Your task to perform on an android device: see tabs open on other devices in the chrome app Image 0: 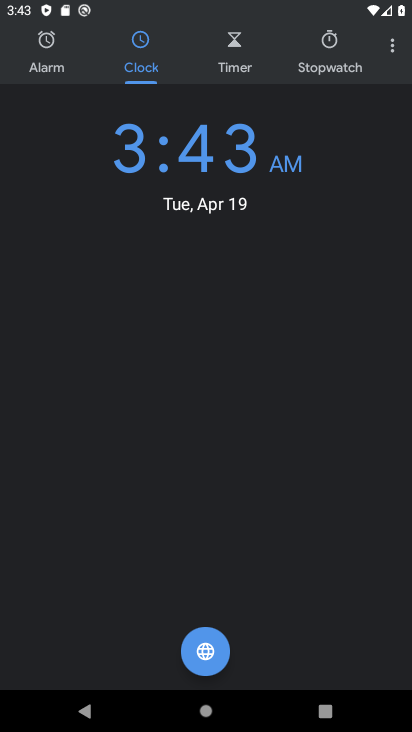
Step 0: press home button
Your task to perform on an android device: see tabs open on other devices in the chrome app Image 1: 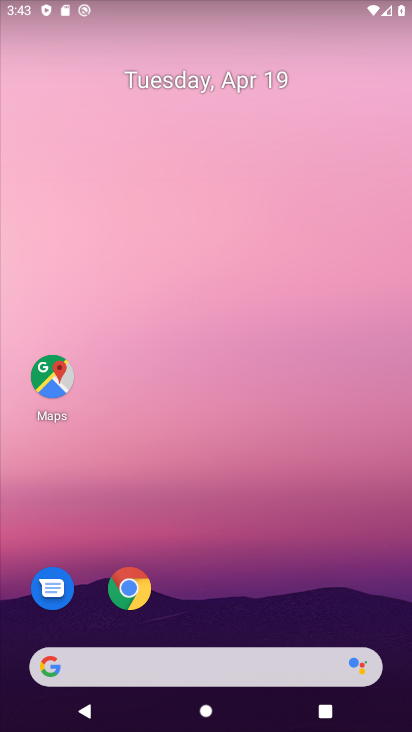
Step 1: click (138, 591)
Your task to perform on an android device: see tabs open on other devices in the chrome app Image 2: 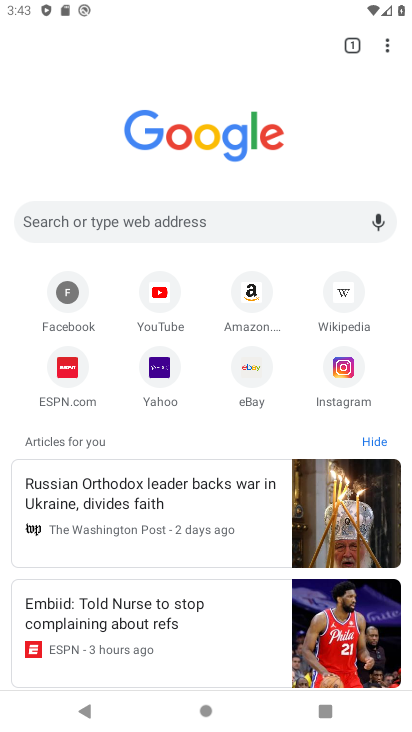
Step 2: click (386, 37)
Your task to perform on an android device: see tabs open on other devices in the chrome app Image 3: 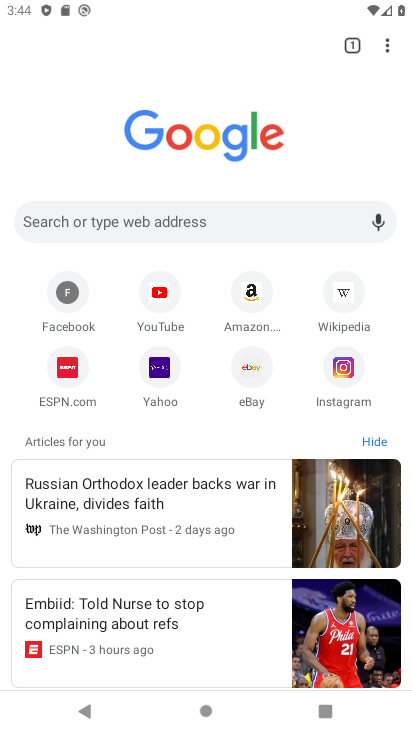
Step 3: click (382, 51)
Your task to perform on an android device: see tabs open on other devices in the chrome app Image 4: 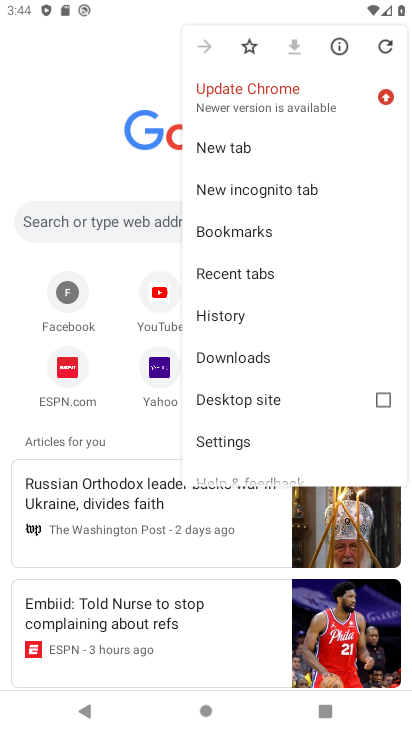
Step 4: click (235, 272)
Your task to perform on an android device: see tabs open on other devices in the chrome app Image 5: 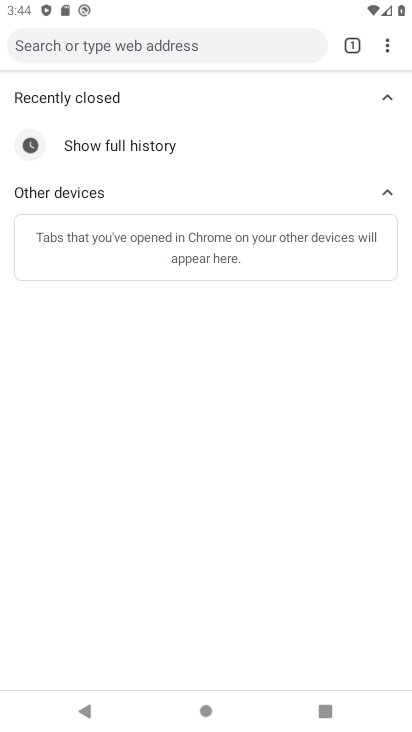
Step 5: task complete